Your task to perform on an android device: Open calendar and show me the third week of next month Image 0: 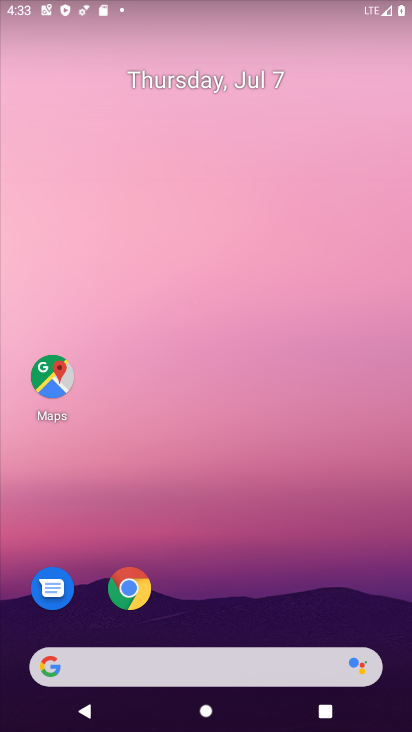
Step 0: drag from (288, 684) to (326, 17)
Your task to perform on an android device: Open calendar and show me the third week of next month Image 1: 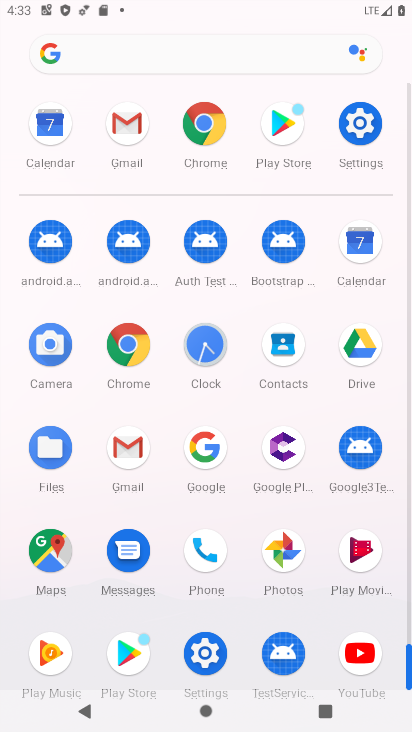
Step 1: click (368, 256)
Your task to perform on an android device: Open calendar and show me the third week of next month Image 2: 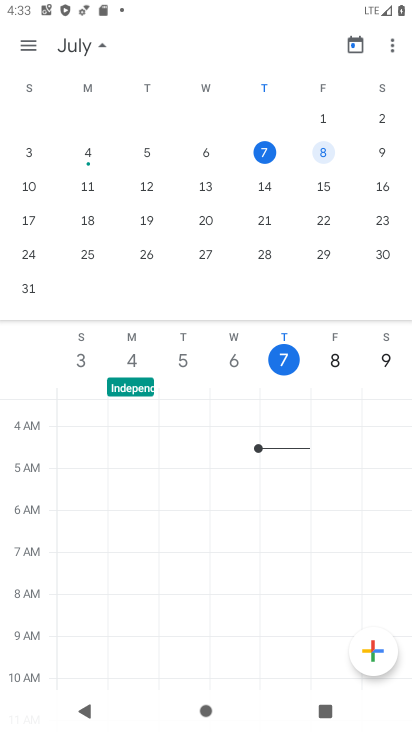
Step 2: drag from (373, 220) to (147, 244)
Your task to perform on an android device: Open calendar and show me the third week of next month Image 3: 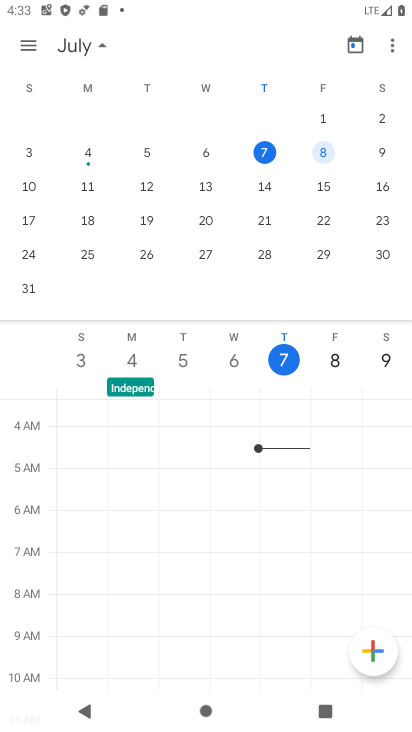
Step 3: drag from (385, 206) to (14, 324)
Your task to perform on an android device: Open calendar and show me the third week of next month Image 4: 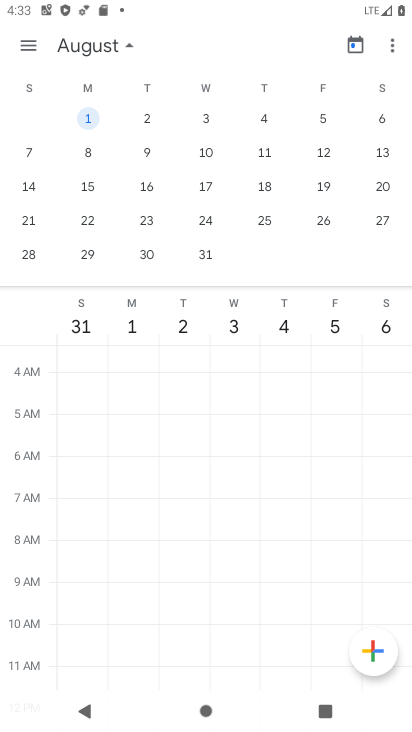
Step 4: click (206, 188)
Your task to perform on an android device: Open calendar and show me the third week of next month Image 5: 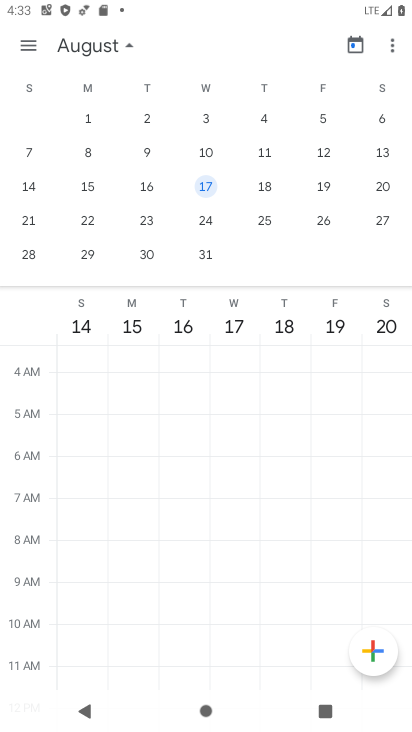
Step 5: task complete